Your task to perform on an android device: Go to notification settings Image 0: 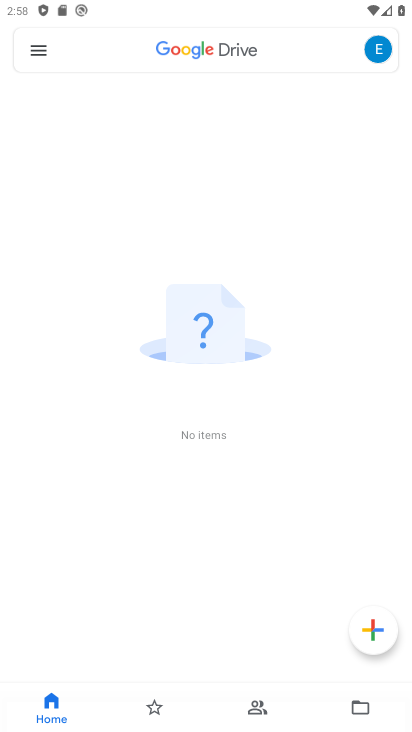
Step 0: drag from (303, 653) to (243, 175)
Your task to perform on an android device: Go to notification settings Image 1: 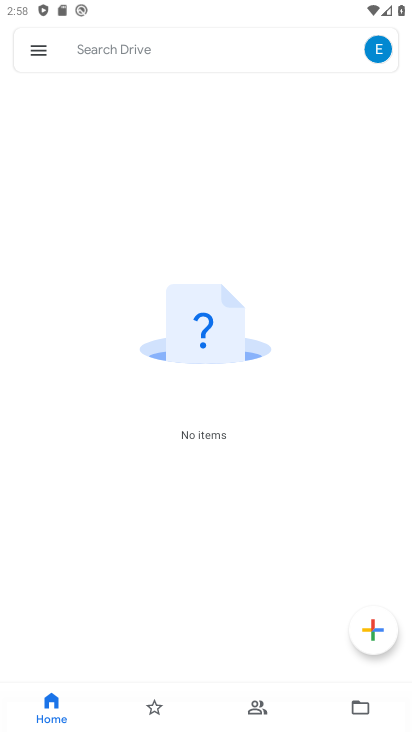
Step 1: press back button
Your task to perform on an android device: Go to notification settings Image 2: 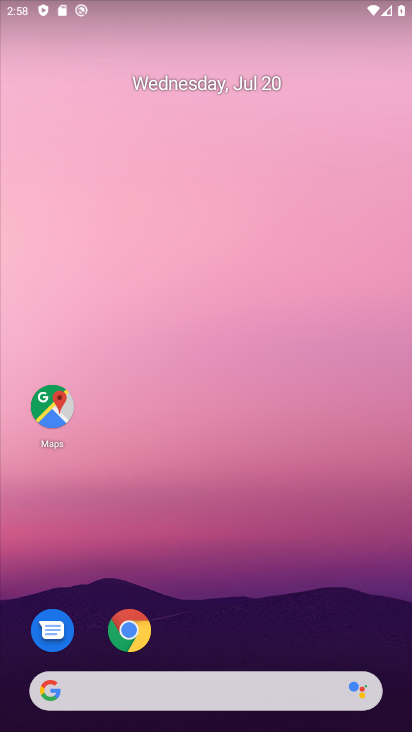
Step 2: drag from (229, 650) to (143, 27)
Your task to perform on an android device: Go to notification settings Image 3: 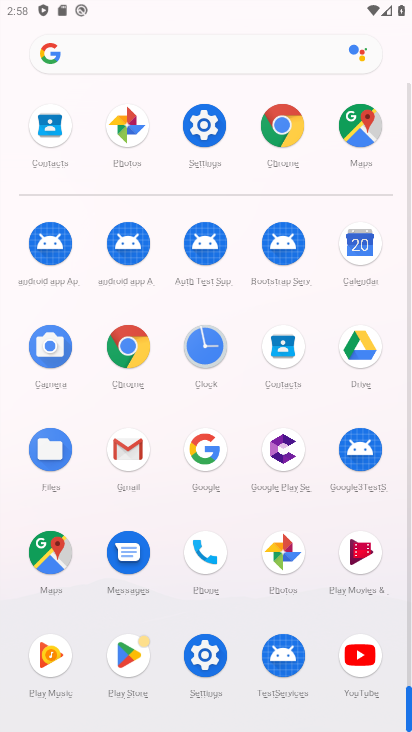
Step 3: click (194, 123)
Your task to perform on an android device: Go to notification settings Image 4: 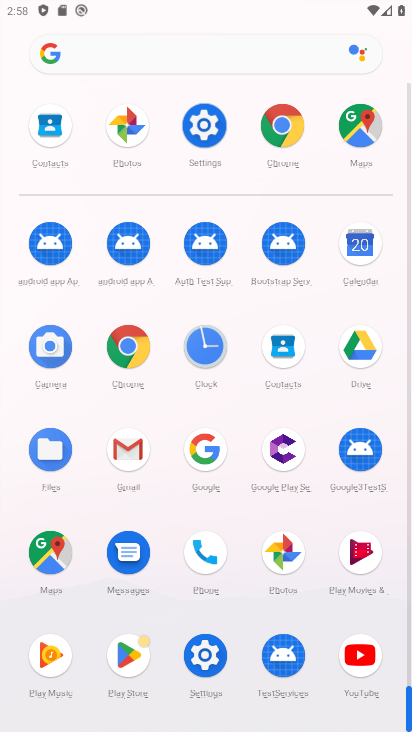
Step 4: click (194, 123)
Your task to perform on an android device: Go to notification settings Image 5: 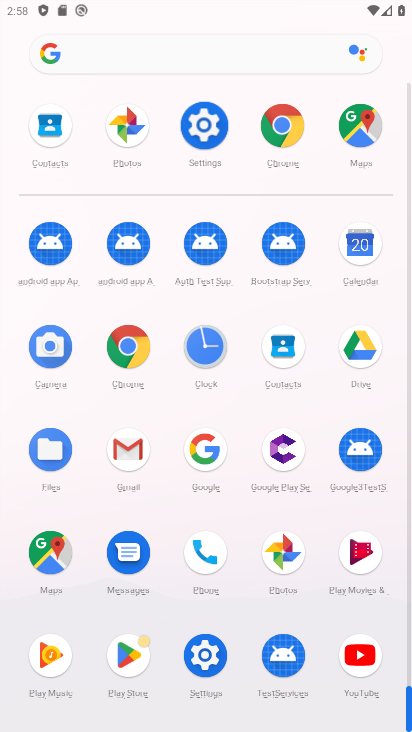
Step 5: click (195, 123)
Your task to perform on an android device: Go to notification settings Image 6: 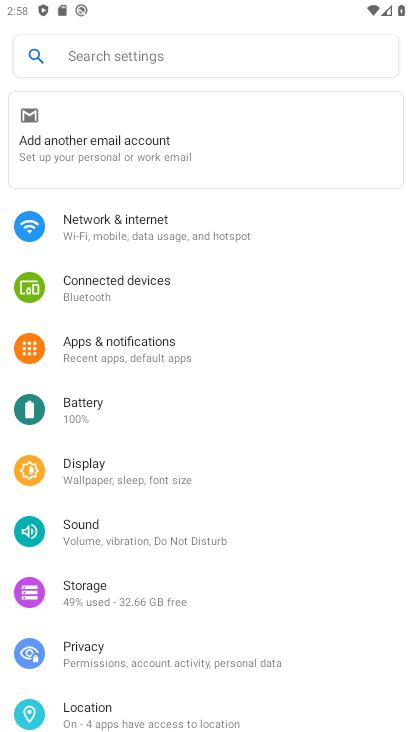
Step 6: click (129, 340)
Your task to perform on an android device: Go to notification settings Image 7: 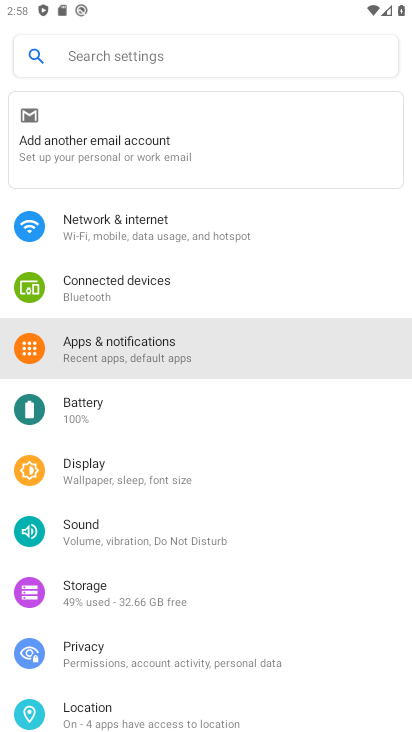
Step 7: click (128, 341)
Your task to perform on an android device: Go to notification settings Image 8: 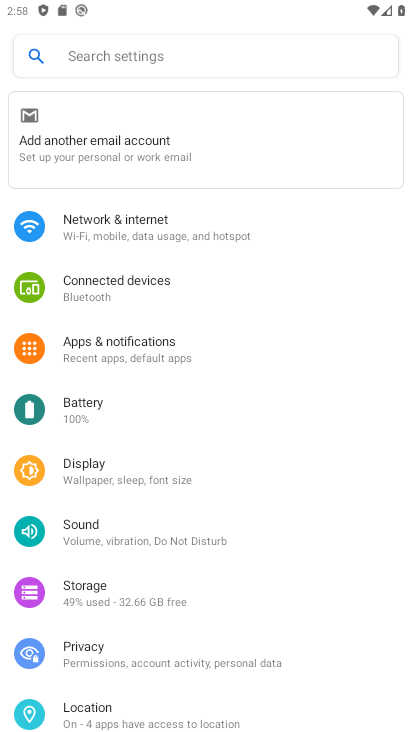
Step 8: click (128, 341)
Your task to perform on an android device: Go to notification settings Image 9: 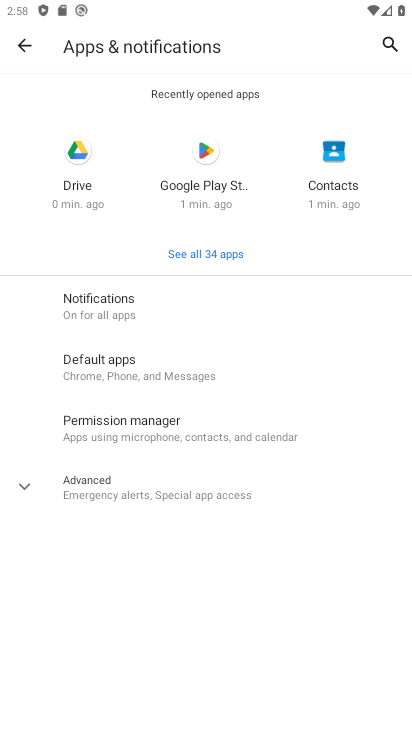
Step 9: click (101, 304)
Your task to perform on an android device: Go to notification settings Image 10: 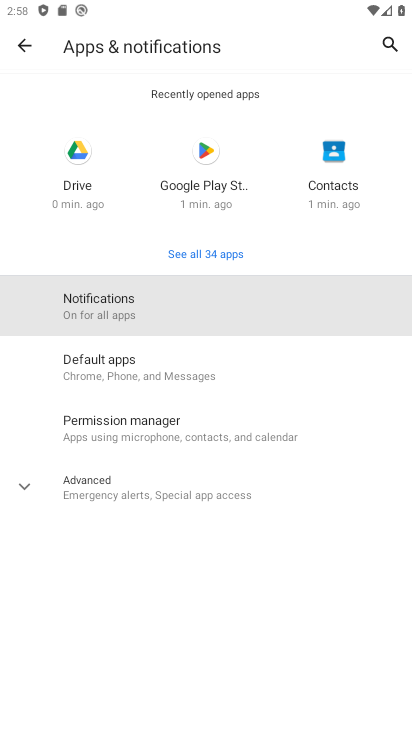
Step 10: click (104, 308)
Your task to perform on an android device: Go to notification settings Image 11: 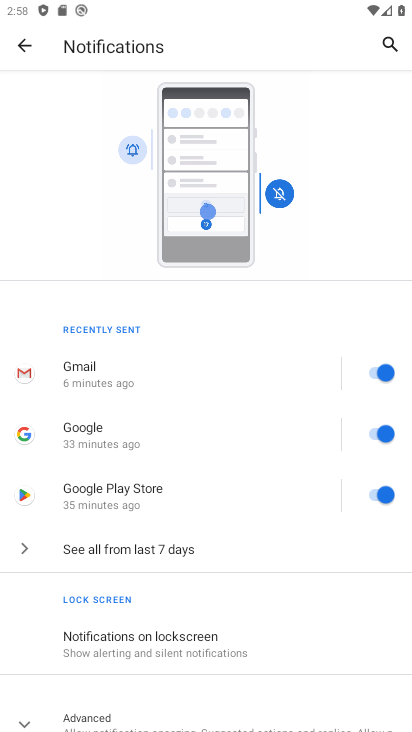
Step 11: click (181, 160)
Your task to perform on an android device: Go to notification settings Image 12: 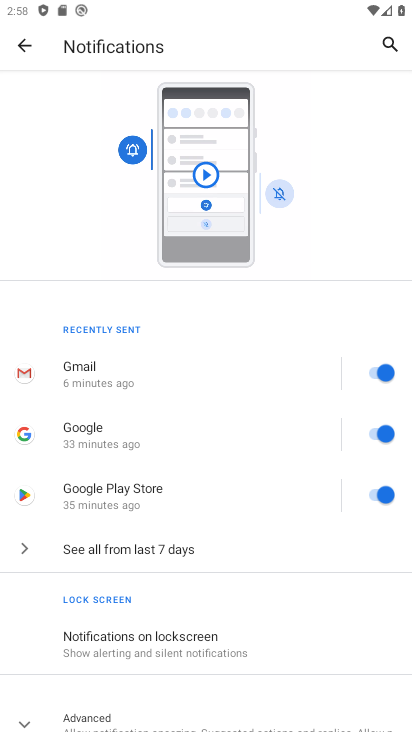
Step 12: task complete